Your task to perform on an android device: install app "Airtel Thanks" Image 0: 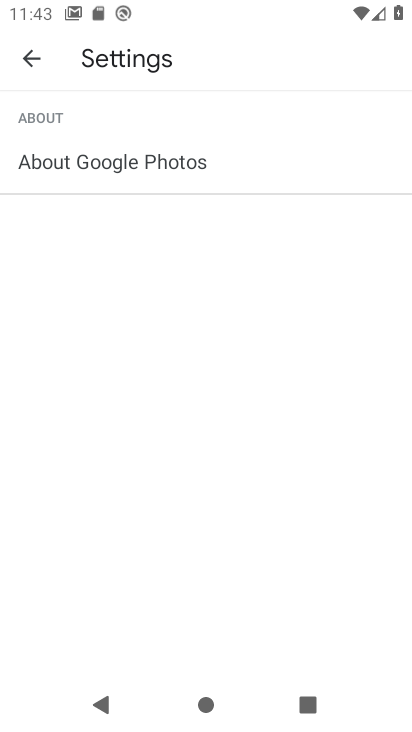
Step 0: press home button
Your task to perform on an android device: install app "Airtel Thanks" Image 1: 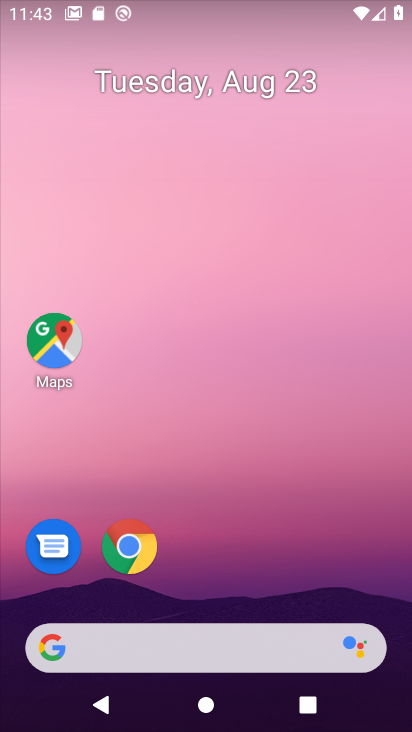
Step 1: drag from (215, 605) to (196, 175)
Your task to perform on an android device: install app "Airtel Thanks" Image 2: 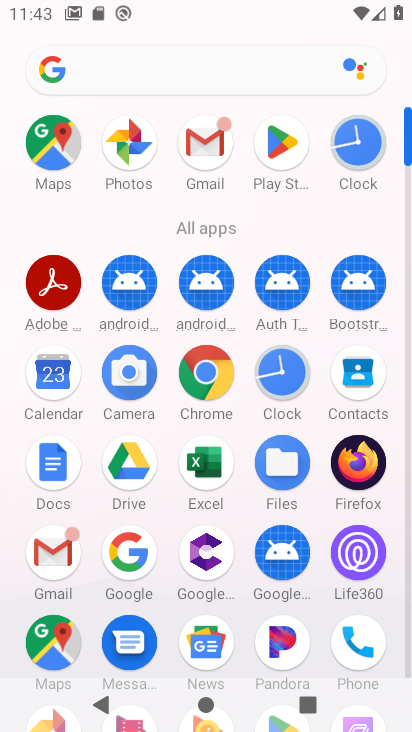
Step 2: click (285, 138)
Your task to perform on an android device: install app "Airtel Thanks" Image 3: 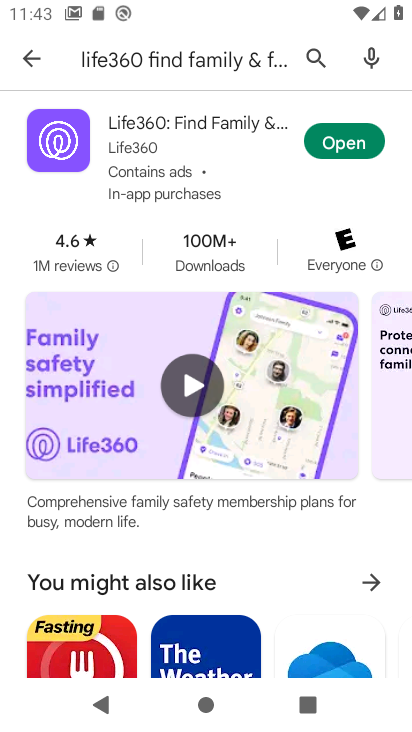
Step 3: click (52, 55)
Your task to perform on an android device: install app "Airtel Thanks" Image 4: 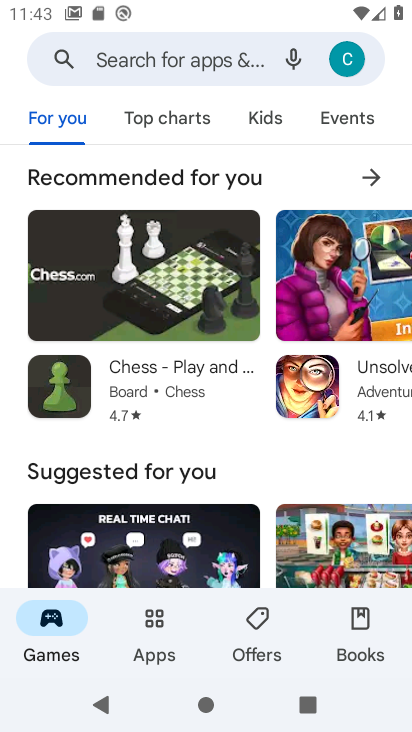
Step 4: click (189, 65)
Your task to perform on an android device: install app "Airtel Thanks" Image 5: 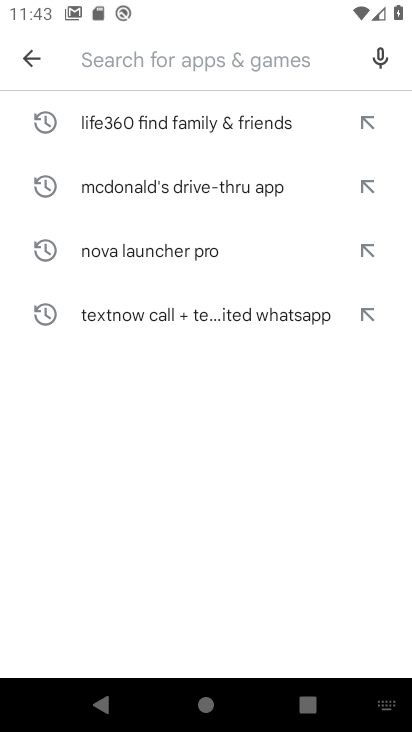
Step 5: type "Airtel Thanks "
Your task to perform on an android device: install app "Airtel Thanks" Image 6: 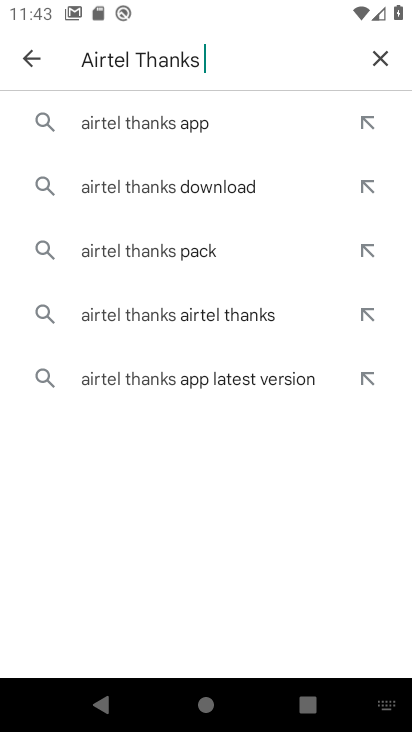
Step 6: click (151, 113)
Your task to perform on an android device: install app "Airtel Thanks" Image 7: 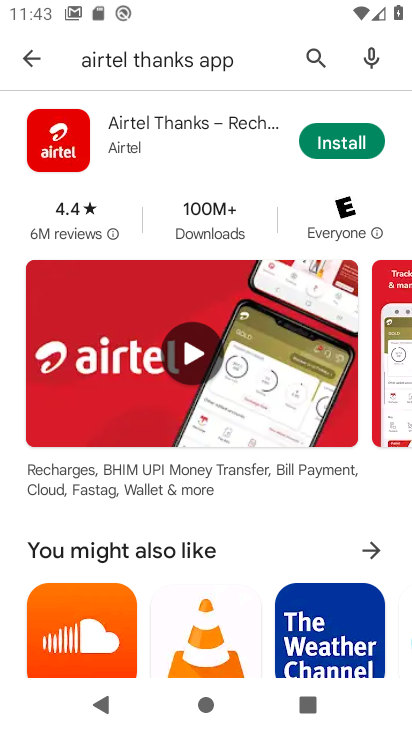
Step 7: click (354, 138)
Your task to perform on an android device: install app "Airtel Thanks" Image 8: 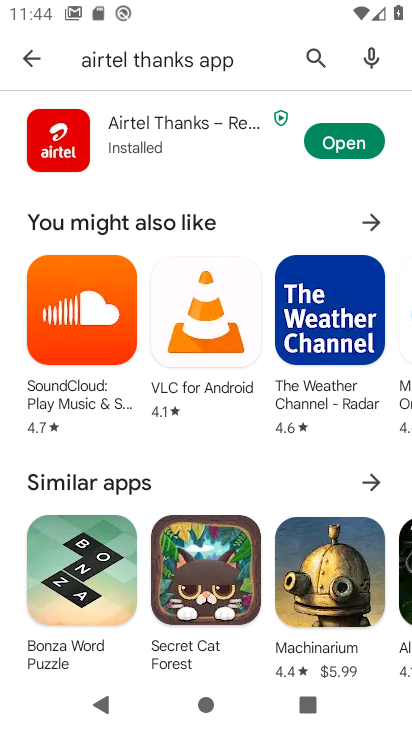
Step 8: task complete